Your task to perform on an android device: Open Google Chrome Image 0: 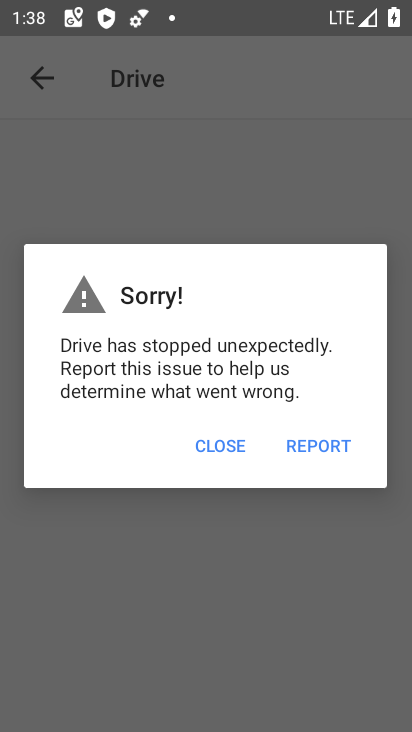
Step 0: drag from (371, 561) to (384, 466)
Your task to perform on an android device: Open Google Chrome Image 1: 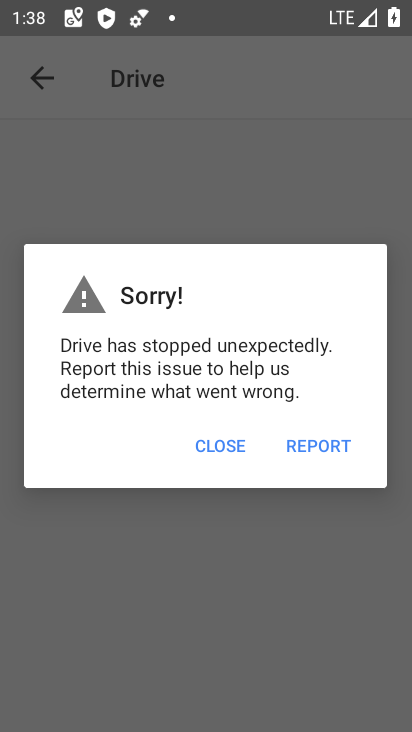
Step 1: press home button
Your task to perform on an android device: Open Google Chrome Image 2: 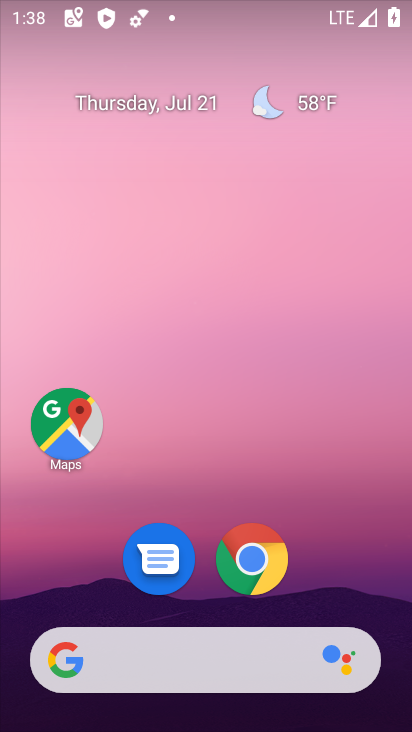
Step 2: drag from (357, 574) to (389, 127)
Your task to perform on an android device: Open Google Chrome Image 3: 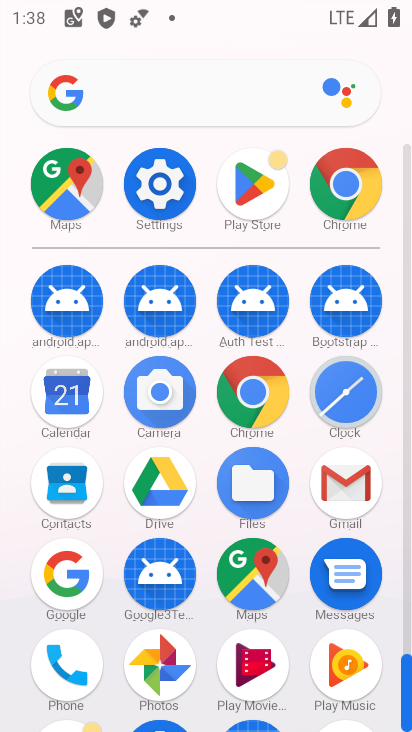
Step 3: click (249, 396)
Your task to perform on an android device: Open Google Chrome Image 4: 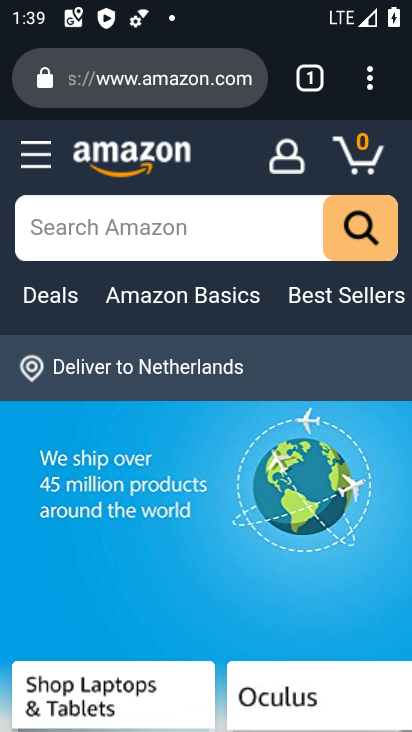
Step 4: task complete